Your task to perform on an android device: Clear the cart on walmart.com. Image 0: 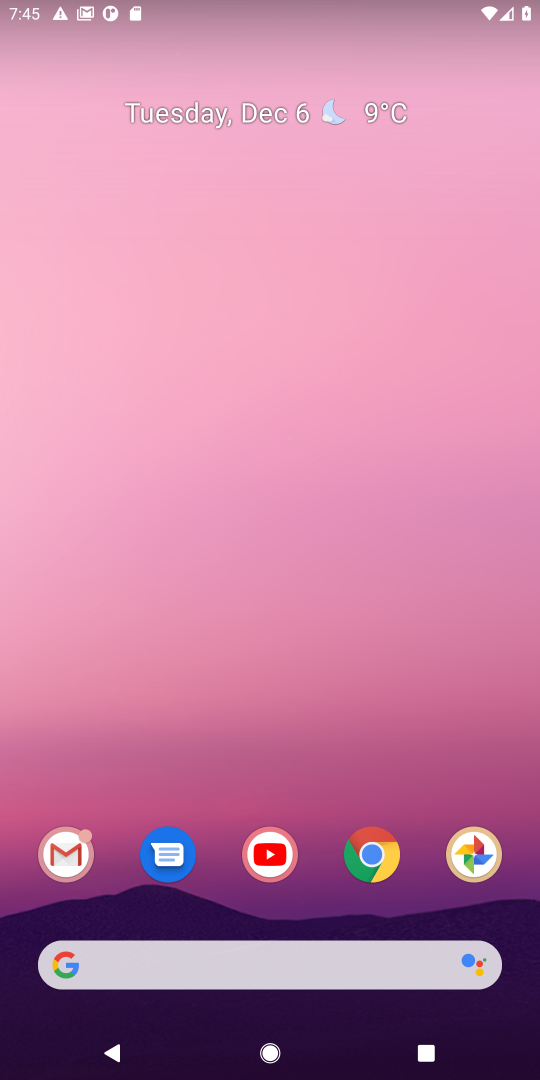
Step 0: click (376, 849)
Your task to perform on an android device: Clear the cart on walmart.com. Image 1: 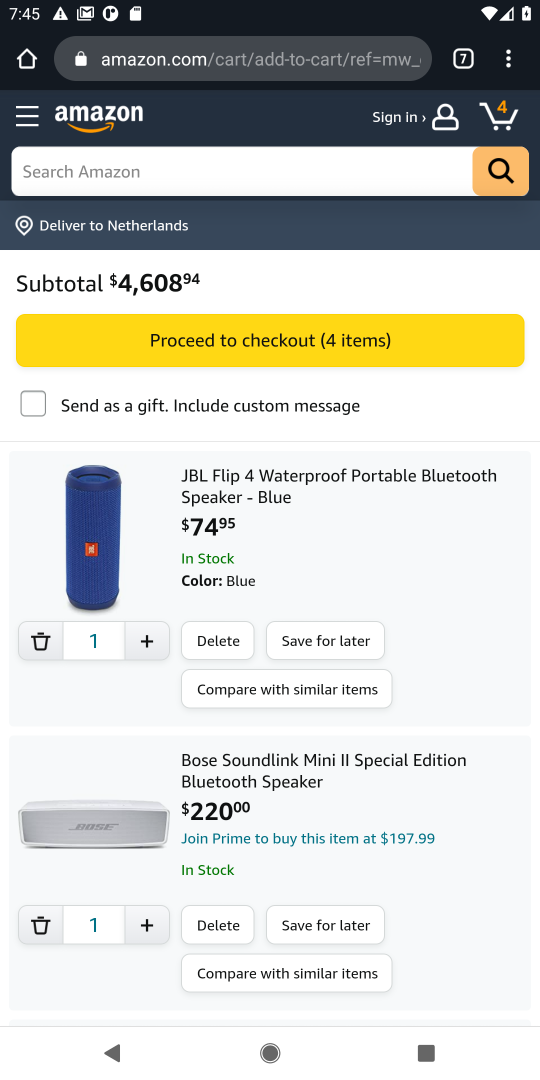
Step 1: click (464, 62)
Your task to perform on an android device: Clear the cart on walmart.com. Image 2: 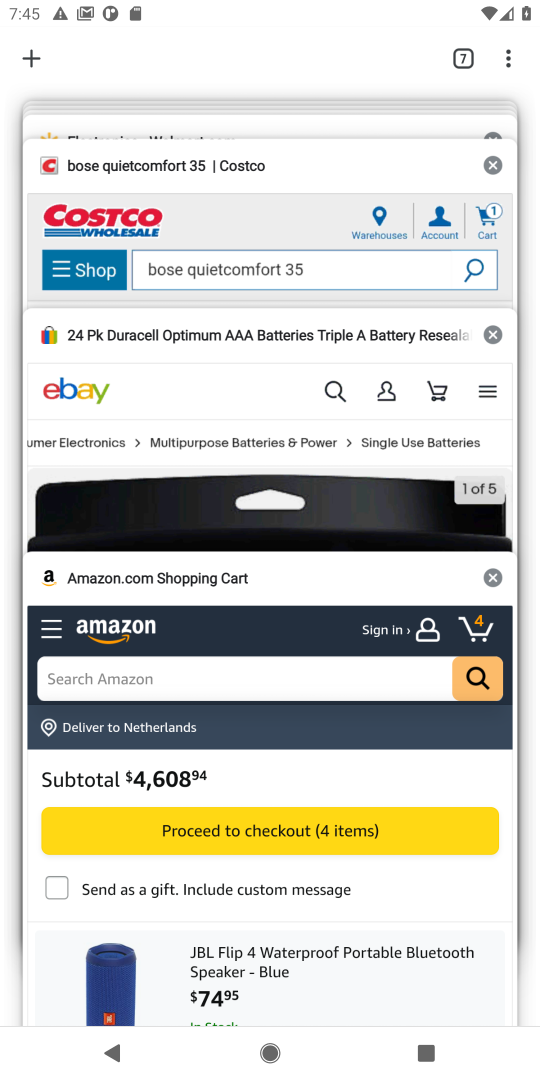
Step 2: drag from (305, 180) to (220, 474)
Your task to perform on an android device: Clear the cart on walmart.com. Image 3: 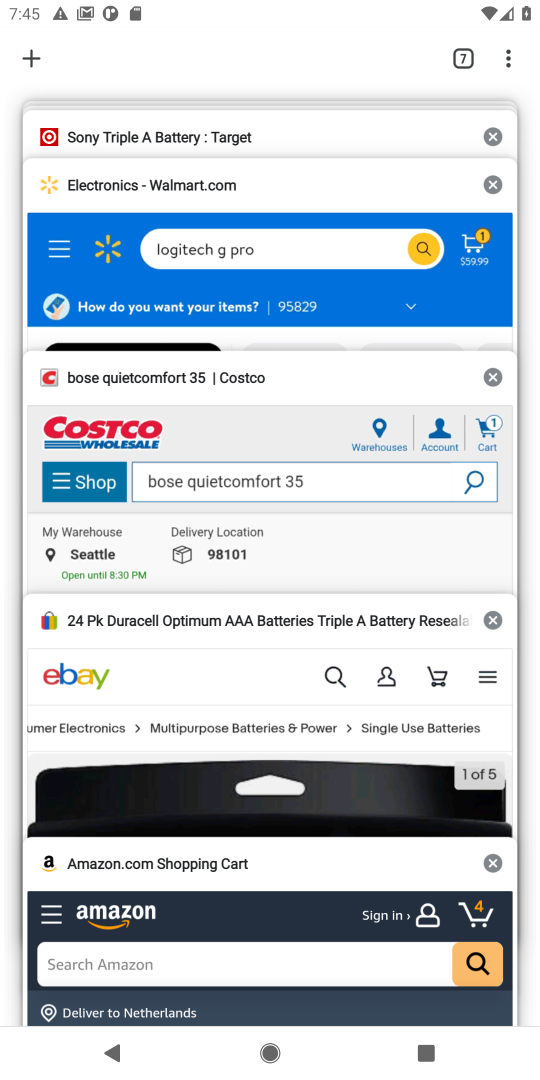
Step 3: click (271, 246)
Your task to perform on an android device: Clear the cart on walmart.com. Image 4: 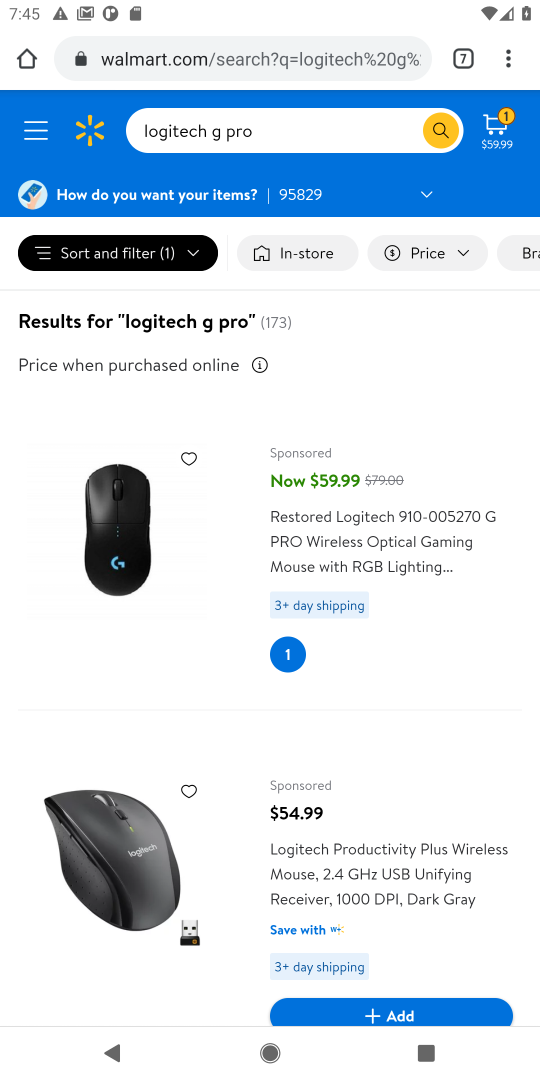
Step 4: click (507, 135)
Your task to perform on an android device: Clear the cart on walmart.com. Image 5: 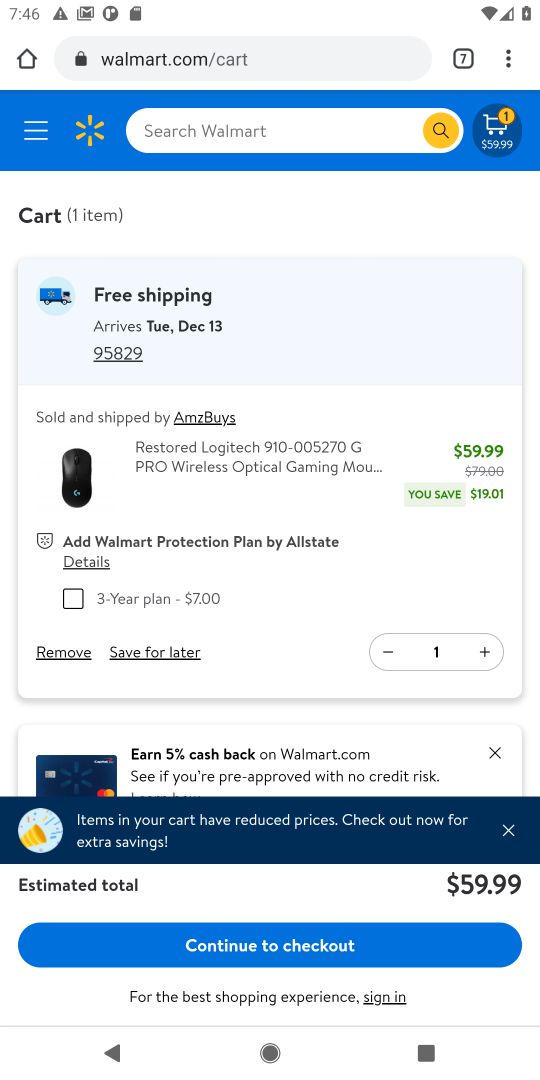
Step 5: click (54, 656)
Your task to perform on an android device: Clear the cart on walmart.com. Image 6: 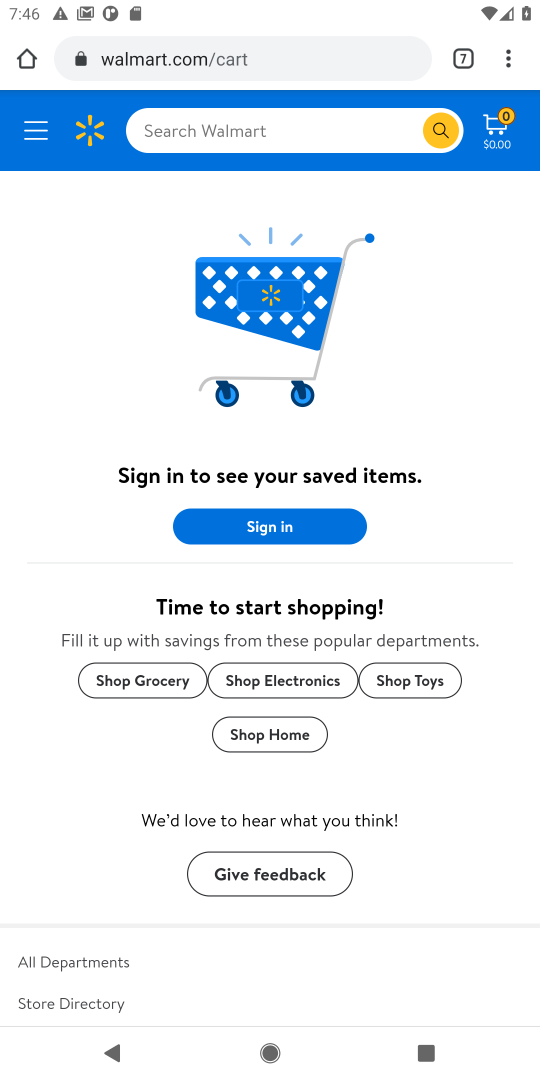
Step 6: task complete